Your task to perform on an android device: find snoozed emails in the gmail app Image 0: 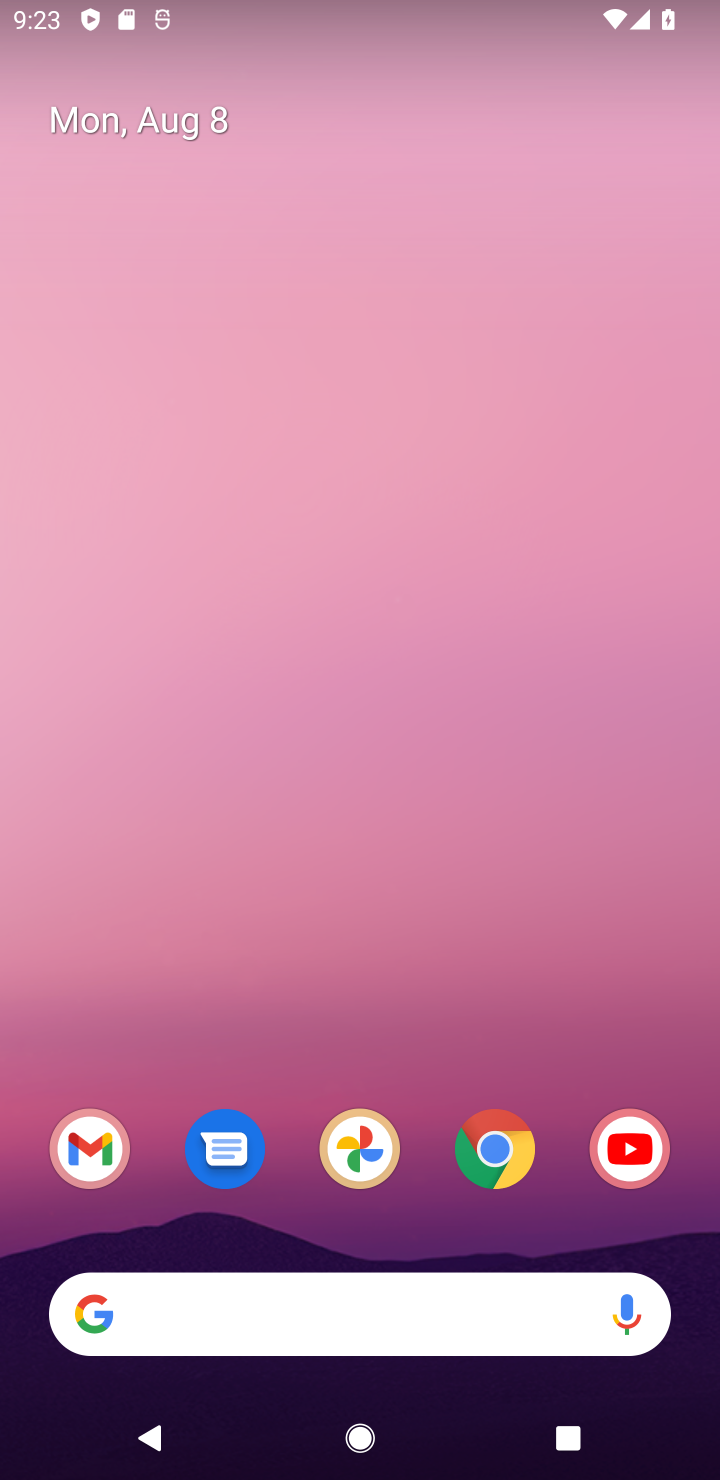
Step 0: click (78, 1174)
Your task to perform on an android device: find snoozed emails in the gmail app Image 1: 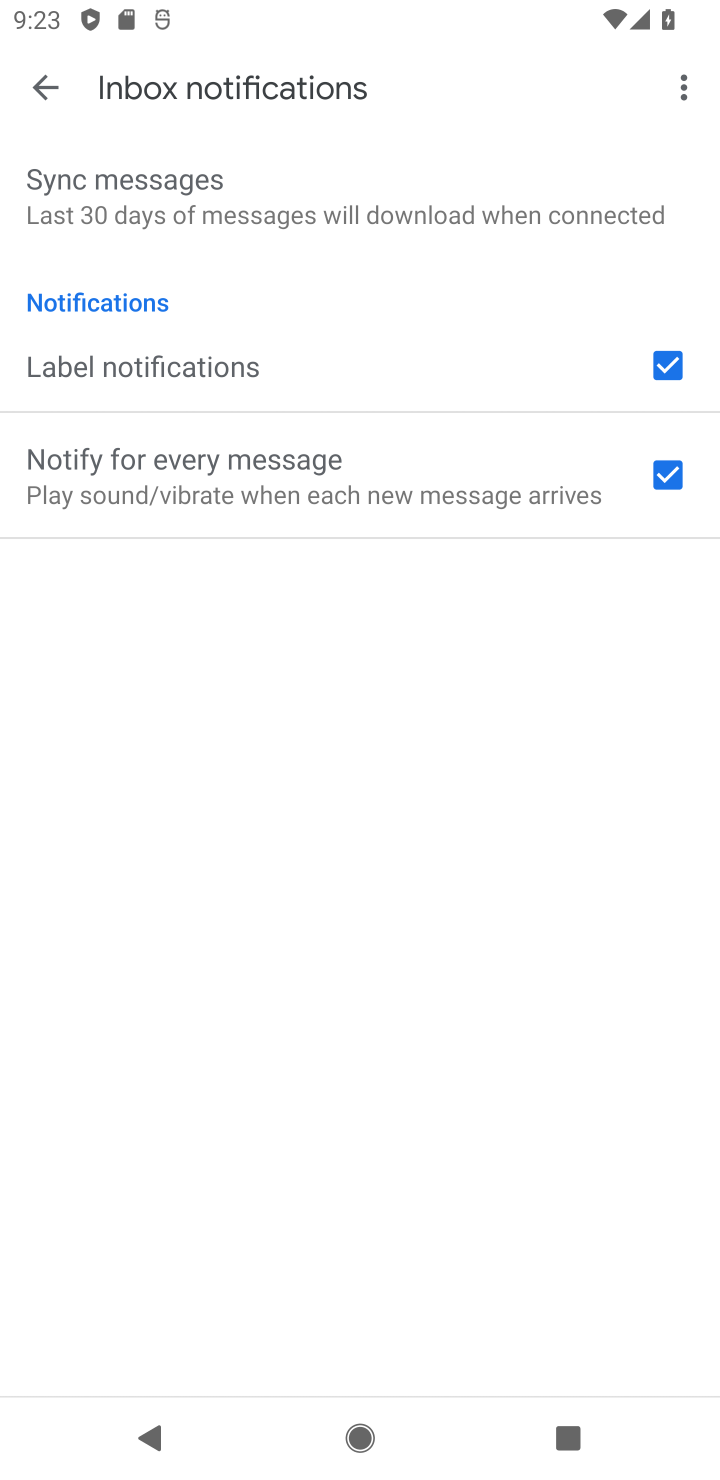
Step 1: click (31, 94)
Your task to perform on an android device: find snoozed emails in the gmail app Image 2: 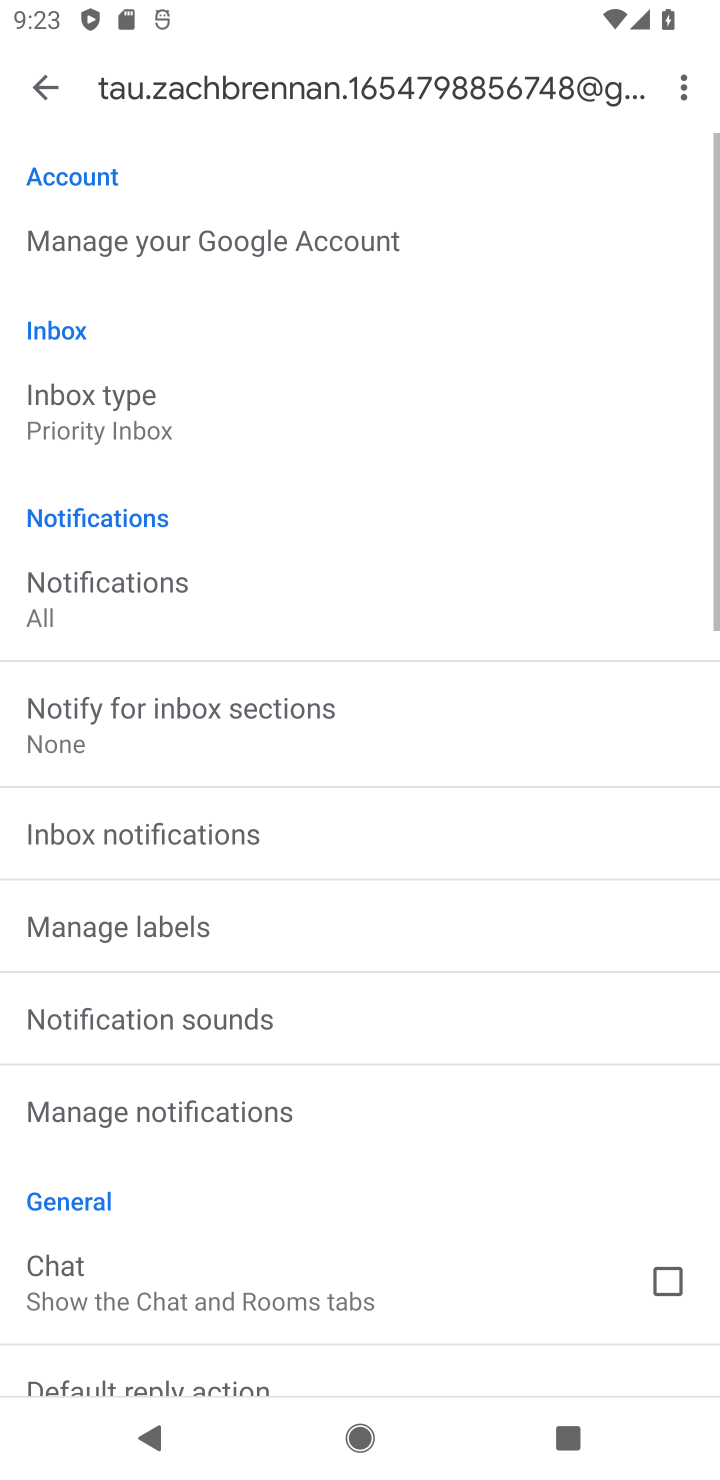
Step 2: click (66, 94)
Your task to perform on an android device: find snoozed emails in the gmail app Image 3: 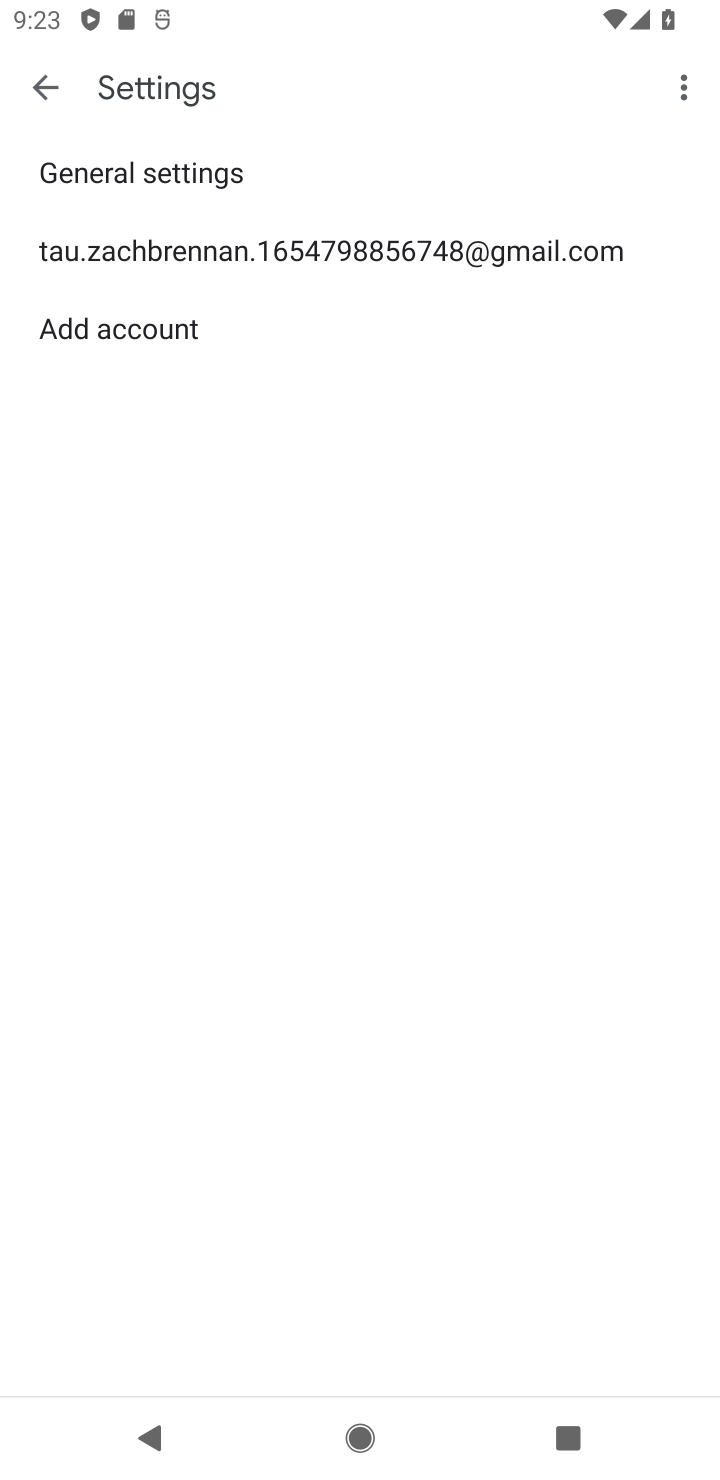
Step 3: click (41, 84)
Your task to perform on an android device: find snoozed emails in the gmail app Image 4: 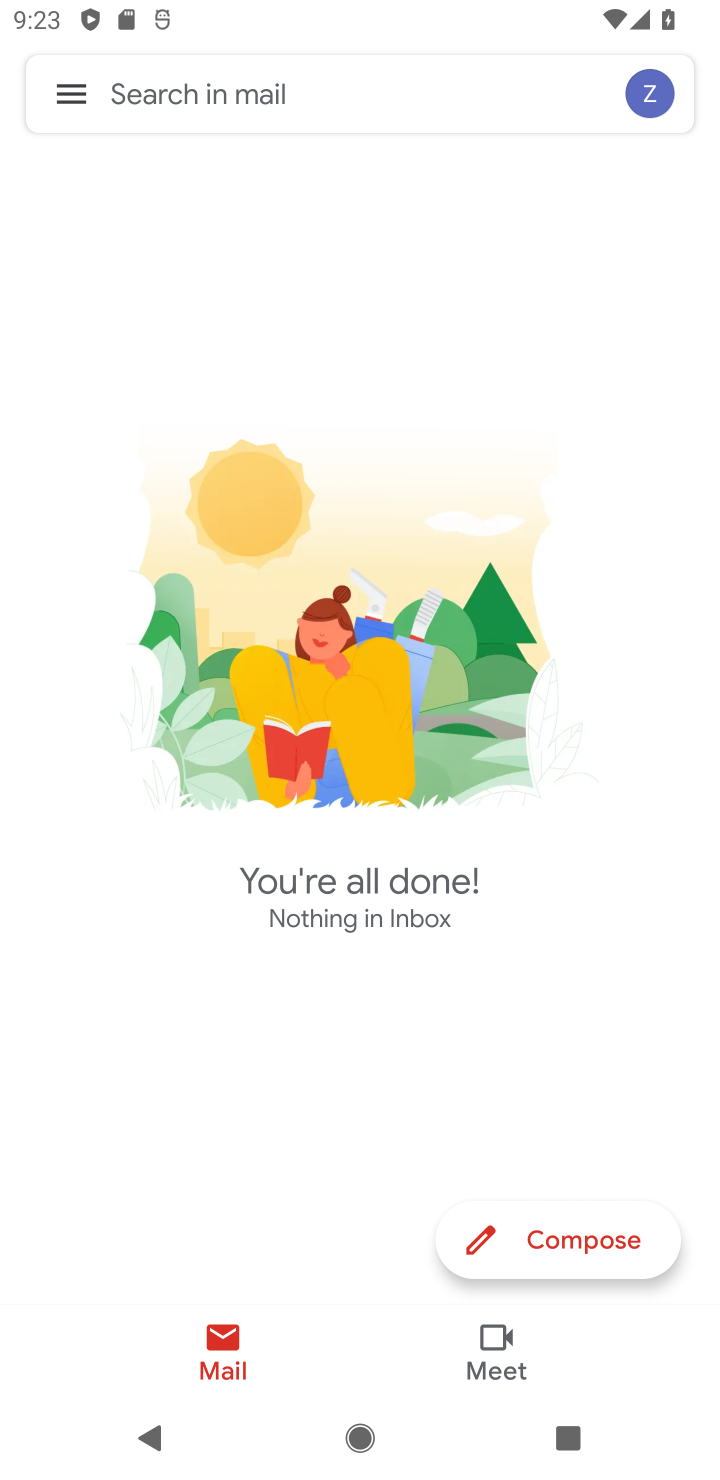
Step 4: click (77, 95)
Your task to perform on an android device: find snoozed emails in the gmail app Image 5: 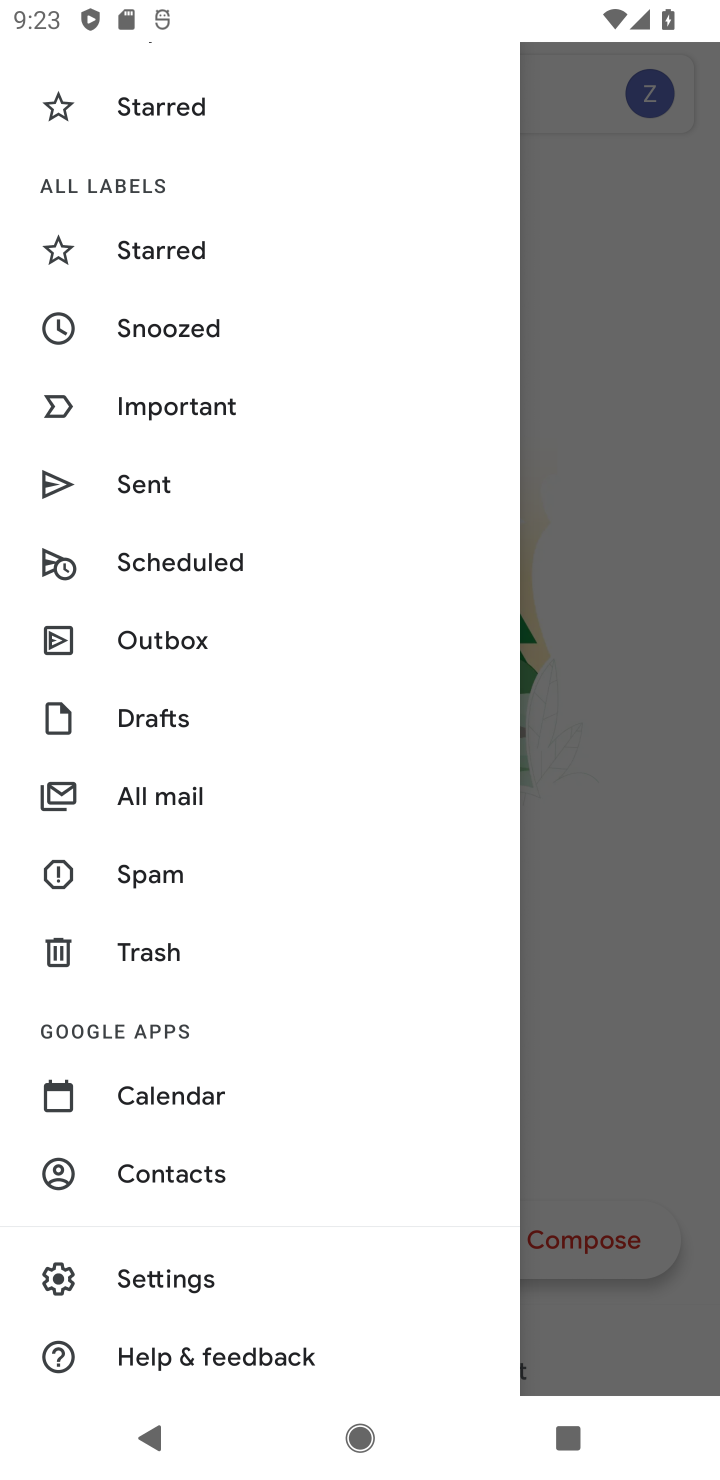
Step 5: click (135, 324)
Your task to perform on an android device: find snoozed emails in the gmail app Image 6: 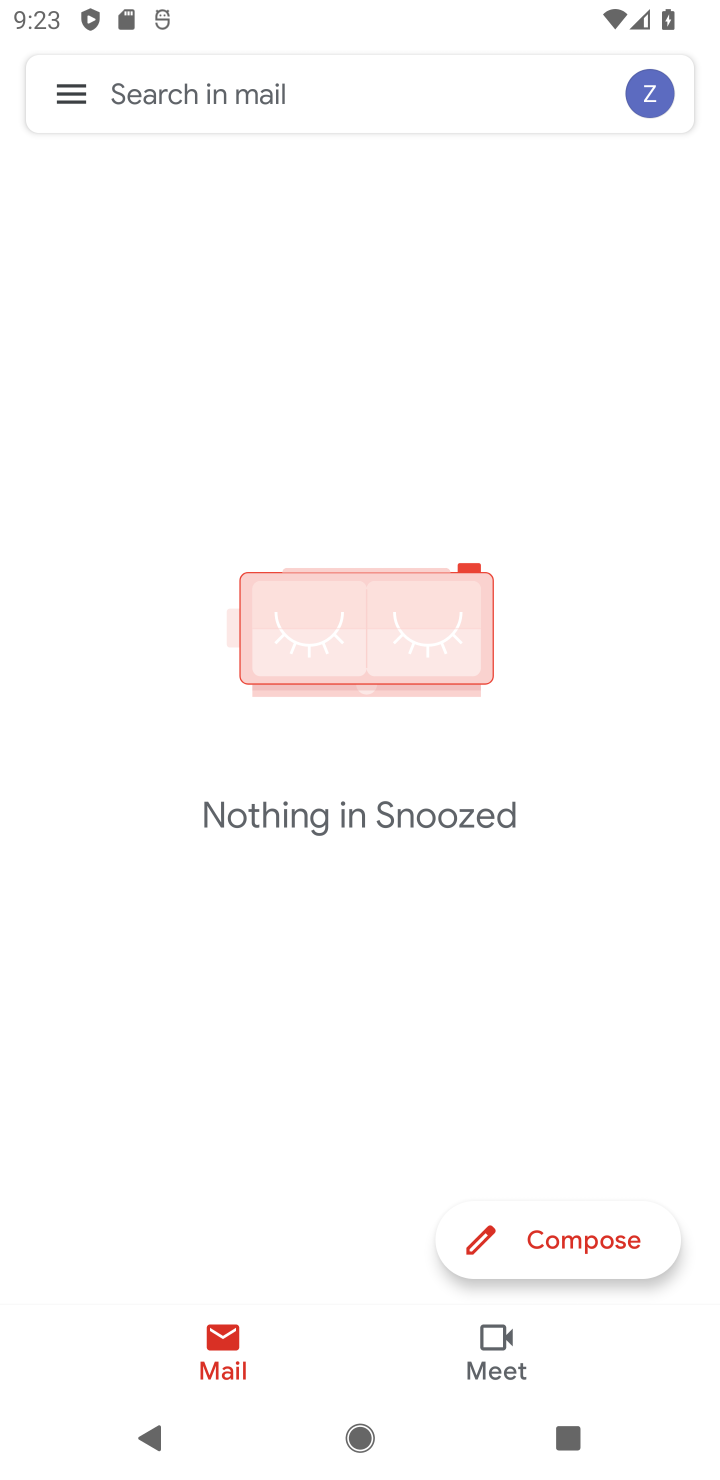
Step 6: task complete